Your task to perform on an android device: Open eBay Image 0: 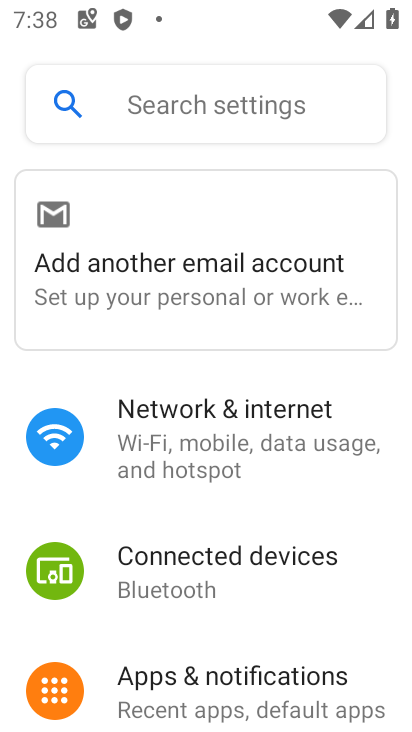
Step 0: press home button
Your task to perform on an android device: Open eBay Image 1: 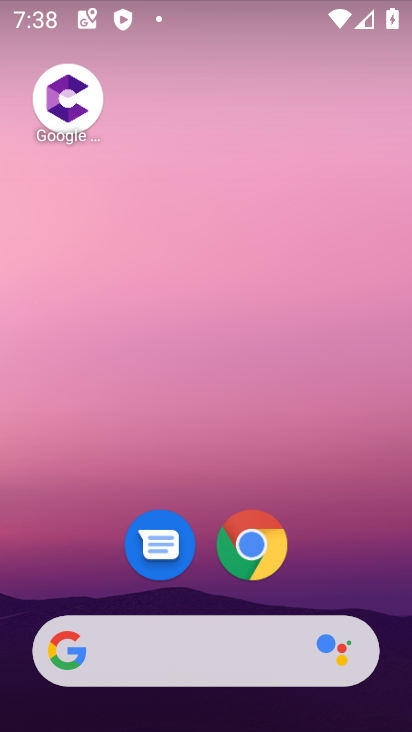
Step 1: click (251, 547)
Your task to perform on an android device: Open eBay Image 2: 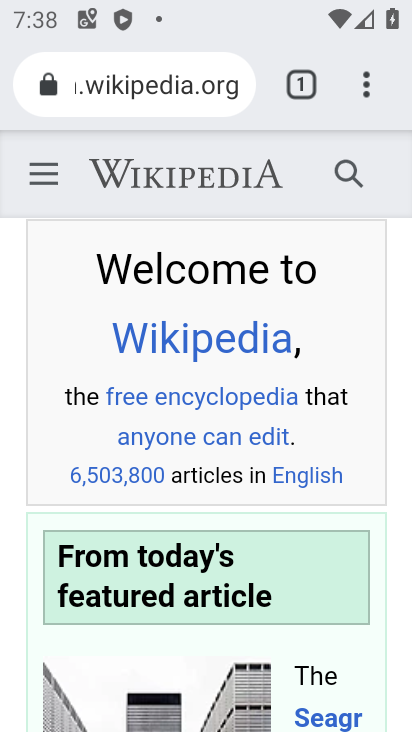
Step 2: click (302, 83)
Your task to perform on an android device: Open eBay Image 3: 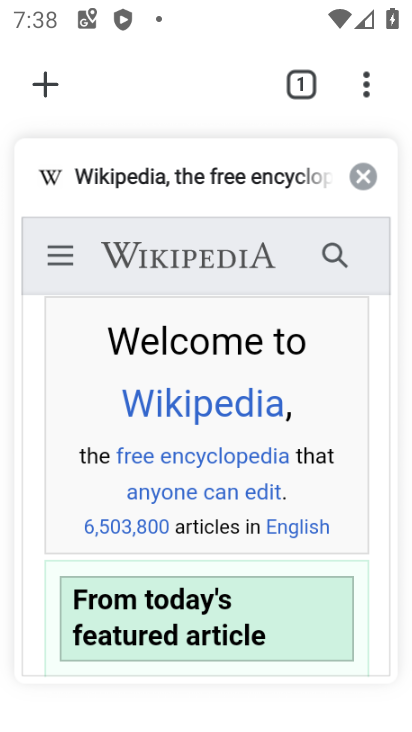
Step 3: click (358, 179)
Your task to perform on an android device: Open eBay Image 4: 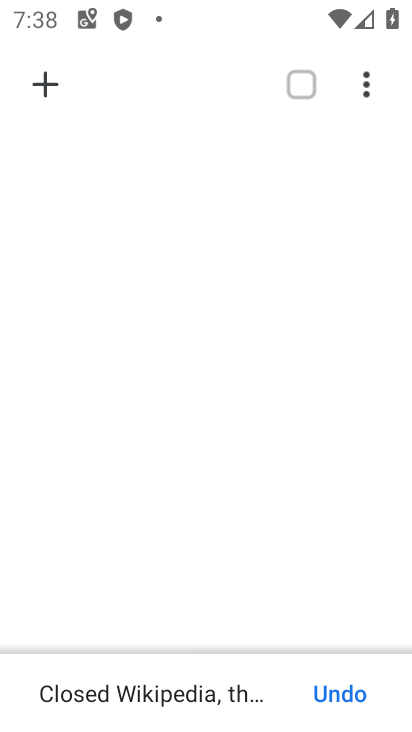
Step 4: click (46, 92)
Your task to perform on an android device: Open eBay Image 5: 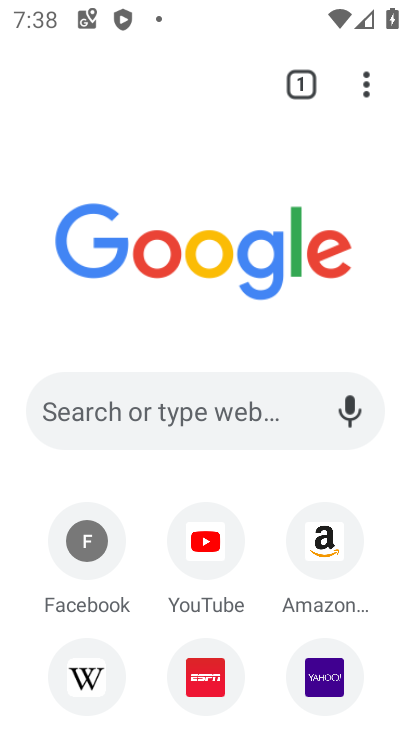
Step 5: drag from (15, 533) to (174, 119)
Your task to perform on an android device: Open eBay Image 6: 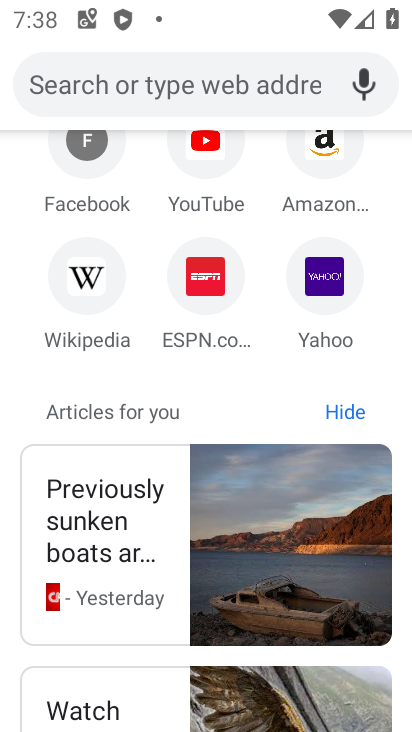
Step 6: click (153, 90)
Your task to perform on an android device: Open eBay Image 7: 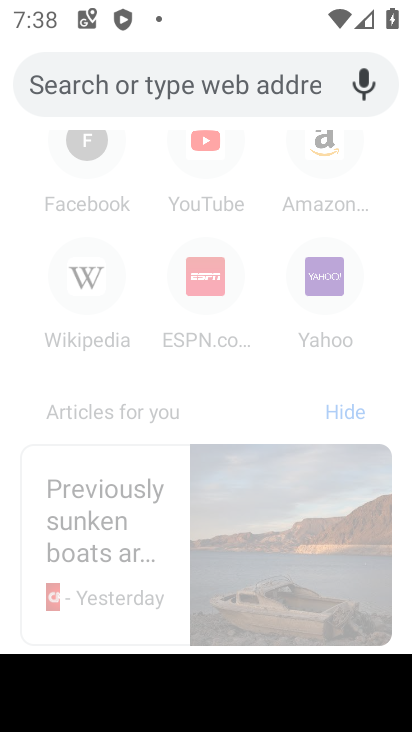
Step 7: type "eBay"
Your task to perform on an android device: Open eBay Image 8: 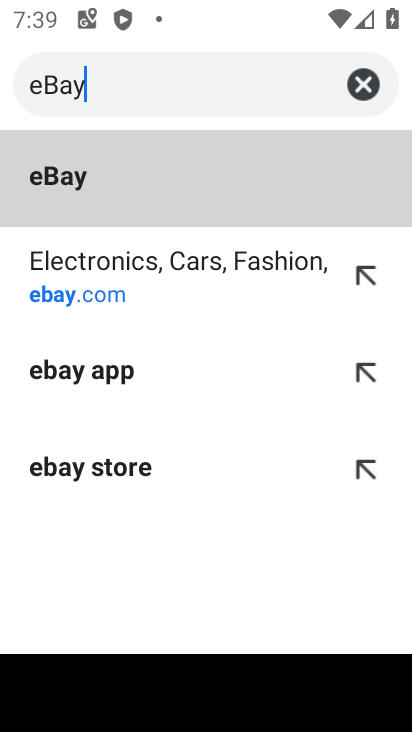
Step 8: click (185, 199)
Your task to perform on an android device: Open eBay Image 9: 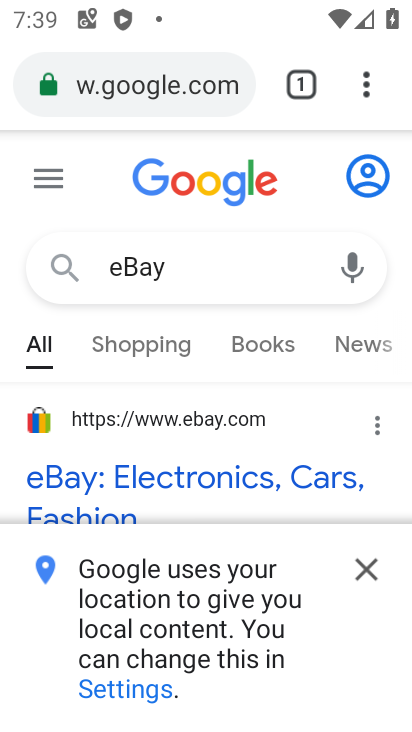
Step 9: click (91, 499)
Your task to perform on an android device: Open eBay Image 10: 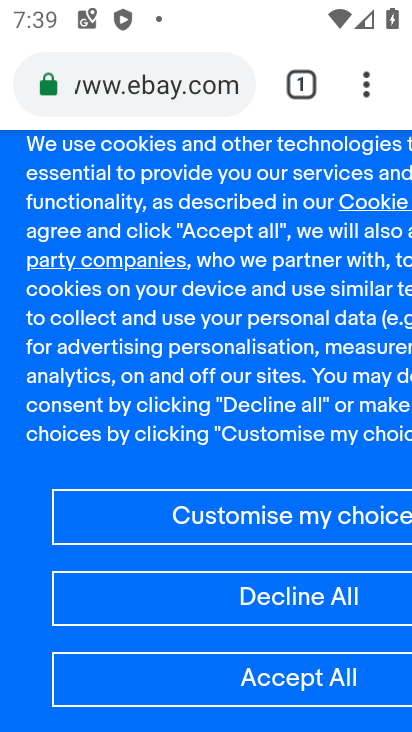
Step 10: task complete